Your task to perform on an android device: open a new tab in the chrome app Image 0: 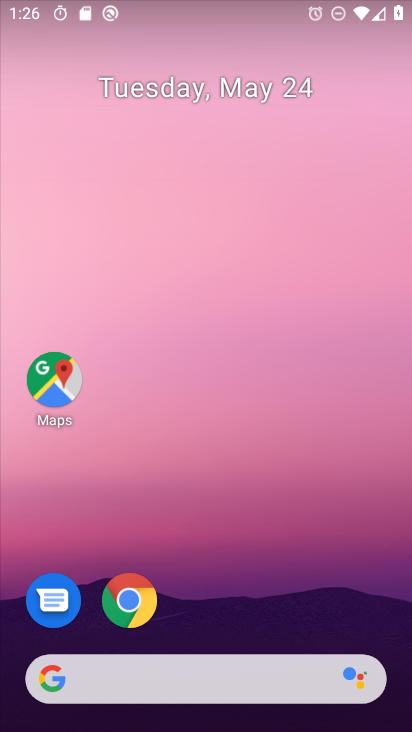
Step 0: click (118, 600)
Your task to perform on an android device: open a new tab in the chrome app Image 1: 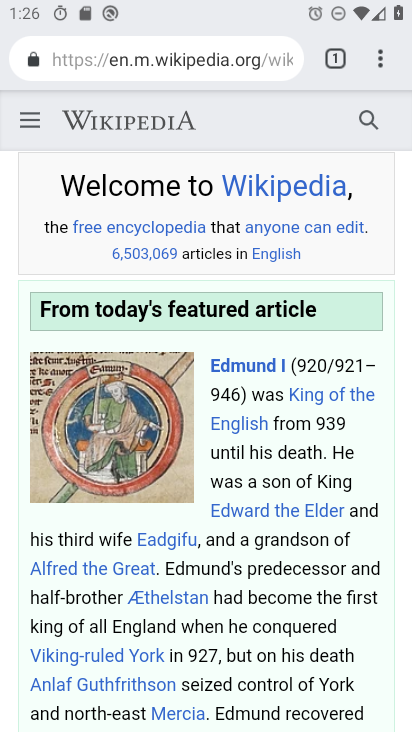
Step 1: click (381, 56)
Your task to perform on an android device: open a new tab in the chrome app Image 2: 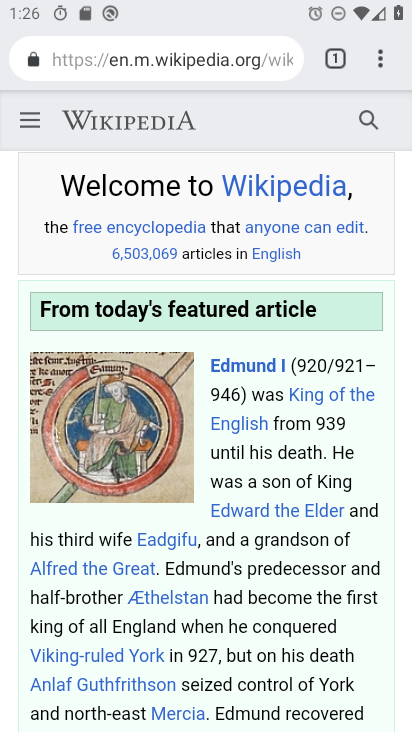
Step 2: task complete